Your task to perform on an android device: Open wifi settings Image 0: 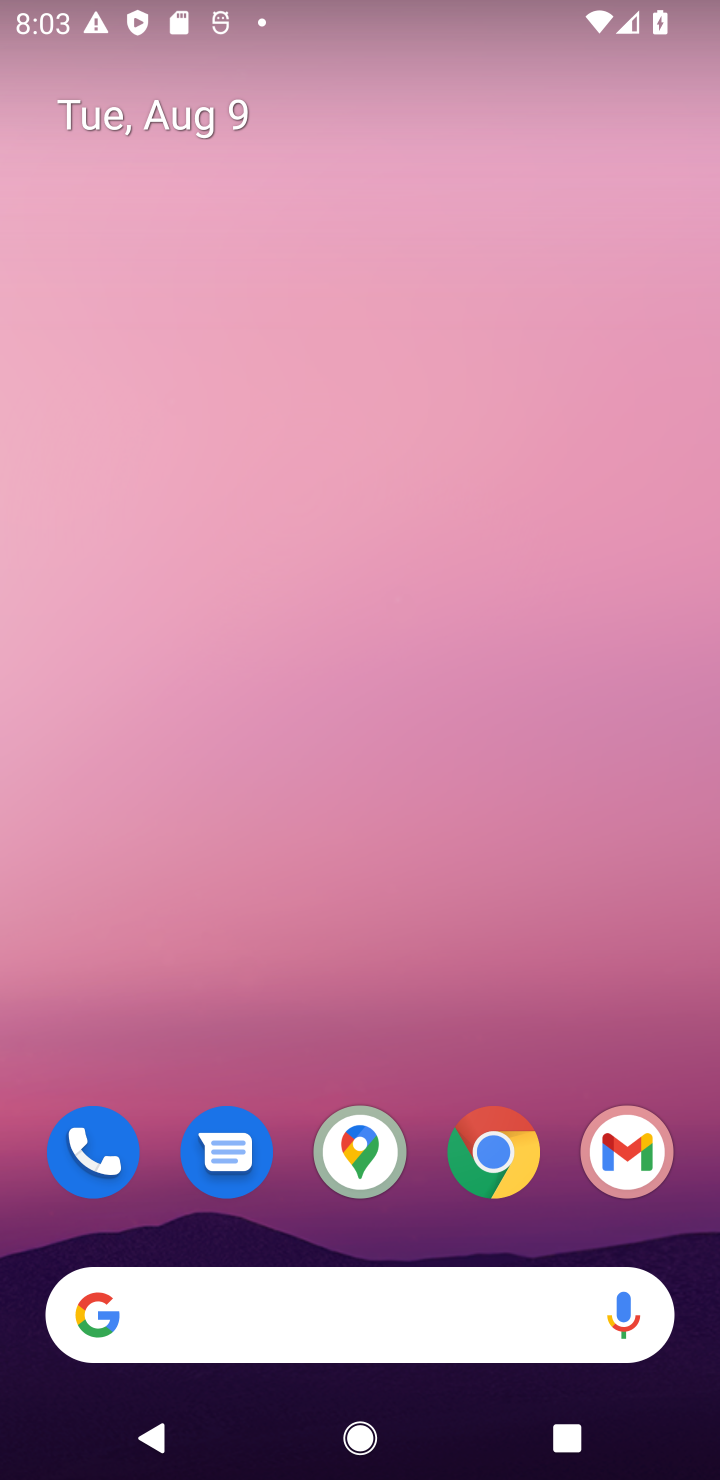
Step 0: drag from (413, 16) to (405, 1158)
Your task to perform on an android device: Open wifi settings Image 1: 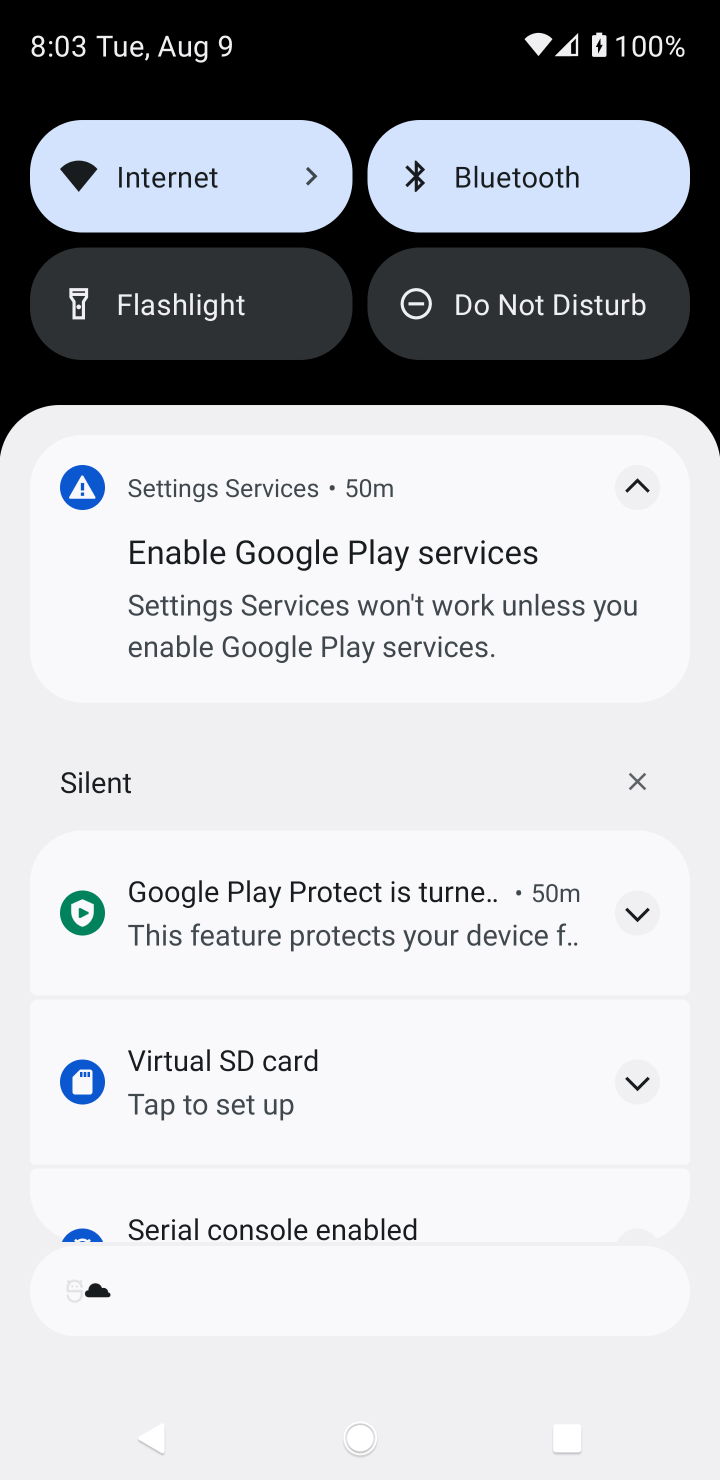
Step 1: click (259, 180)
Your task to perform on an android device: Open wifi settings Image 2: 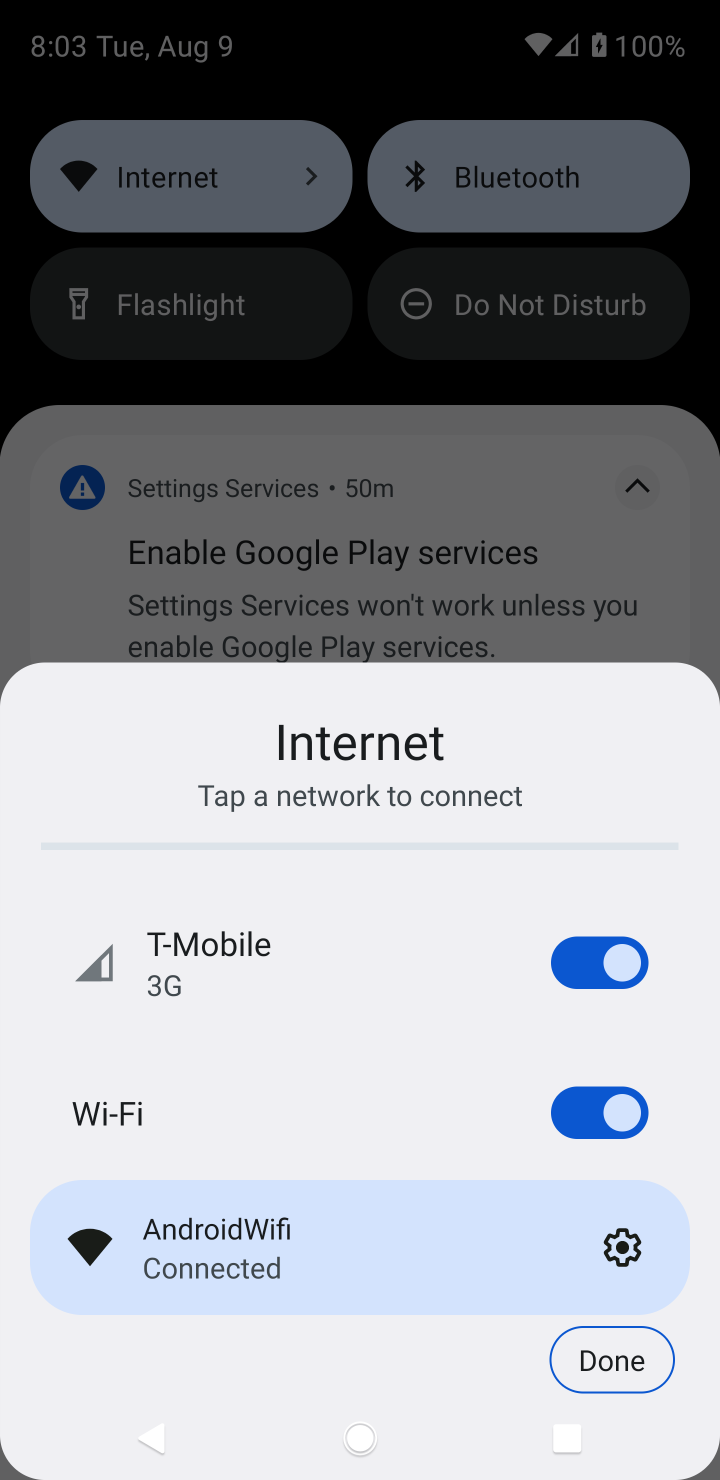
Step 2: click (435, 1122)
Your task to perform on an android device: Open wifi settings Image 3: 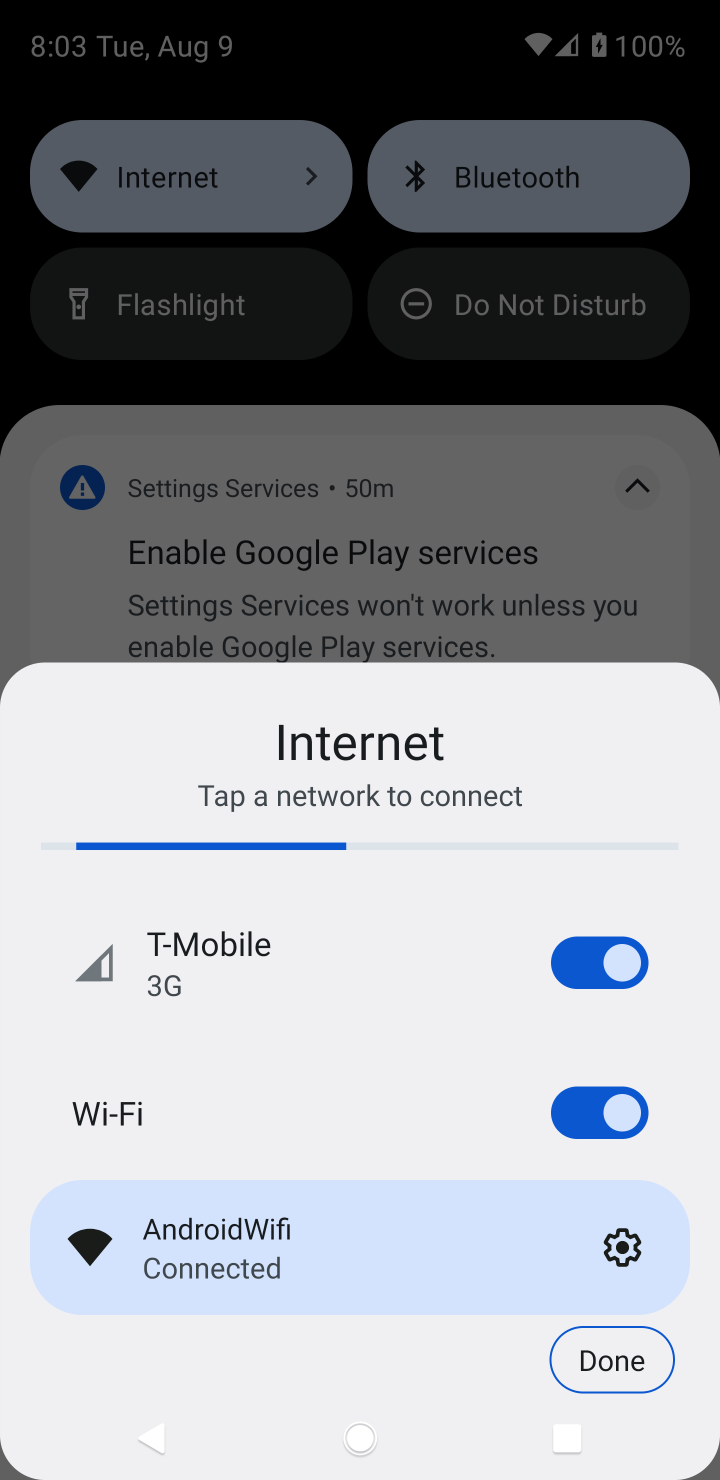
Step 3: click (629, 1248)
Your task to perform on an android device: Open wifi settings Image 4: 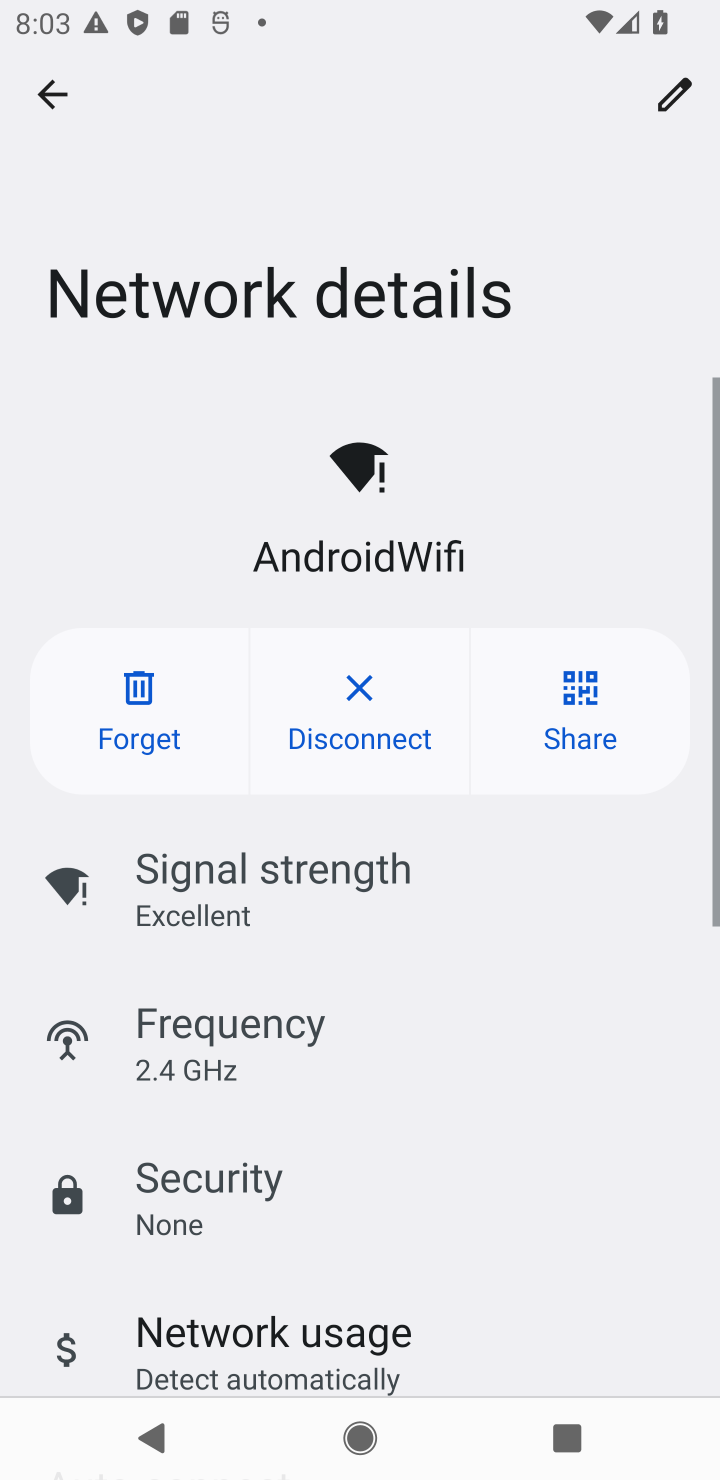
Step 4: task complete